Your task to perform on an android device: turn on improve location accuracy Image 0: 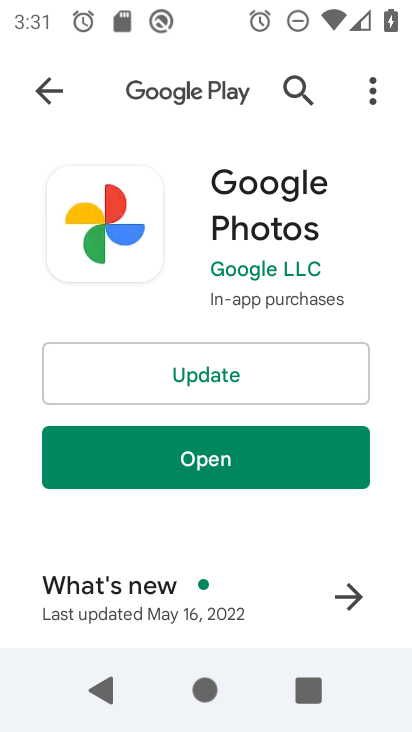
Step 0: press home button
Your task to perform on an android device: turn on improve location accuracy Image 1: 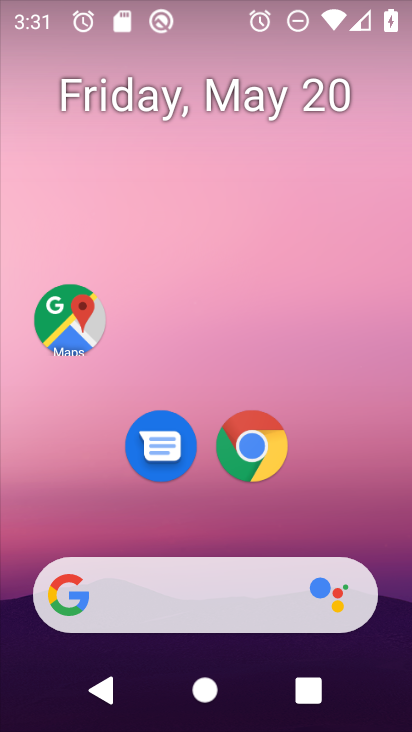
Step 1: drag from (339, 542) to (390, 6)
Your task to perform on an android device: turn on improve location accuracy Image 2: 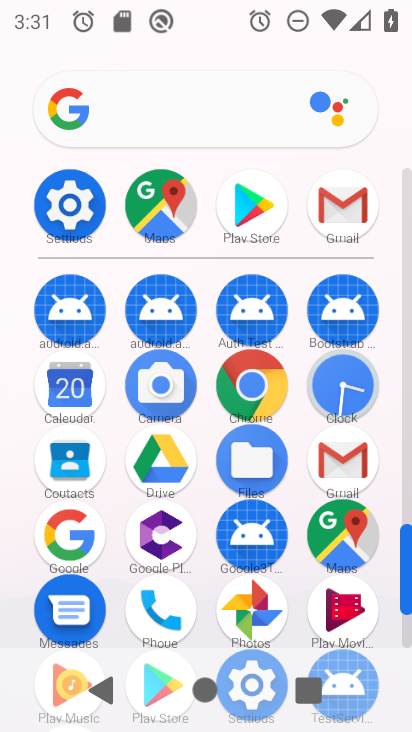
Step 2: click (73, 212)
Your task to perform on an android device: turn on improve location accuracy Image 3: 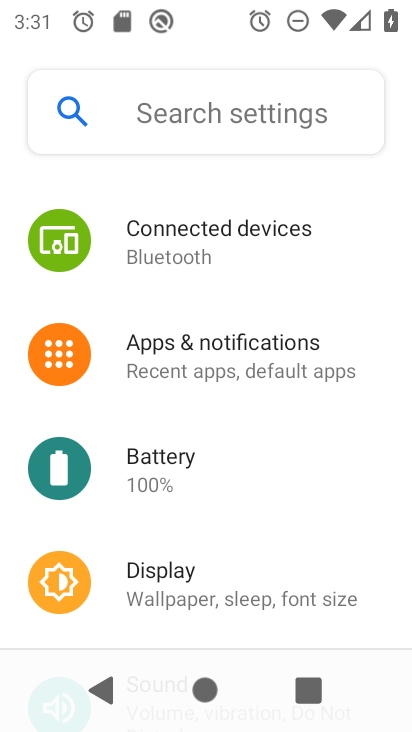
Step 3: drag from (373, 583) to (339, 245)
Your task to perform on an android device: turn on improve location accuracy Image 4: 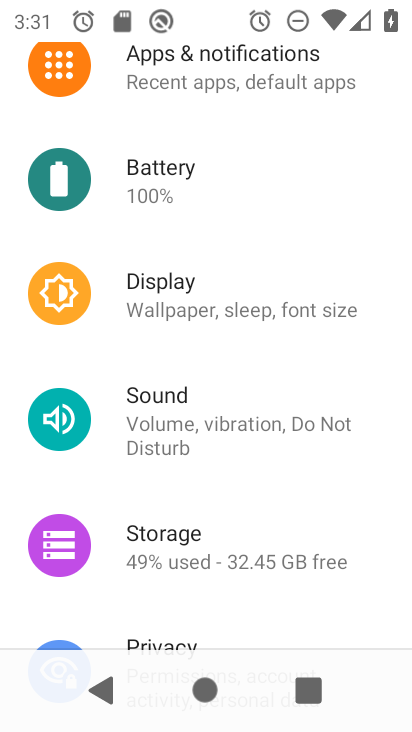
Step 4: drag from (351, 592) to (359, 231)
Your task to perform on an android device: turn on improve location accuracy Image 5: 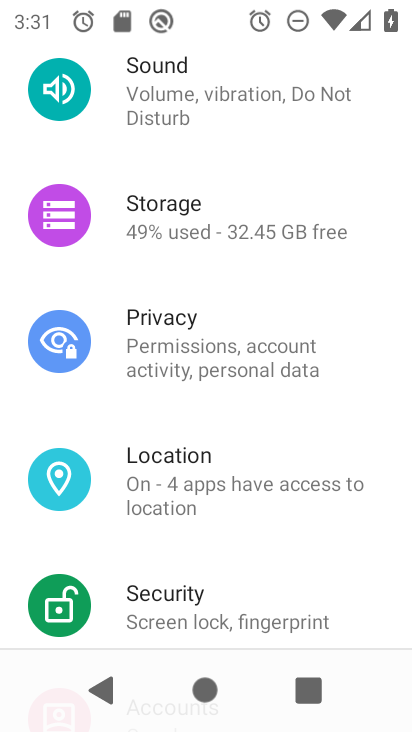
Step 5: click (165, 481)
Your task to perform on an android device: turn on improve location accuracy Image 6: 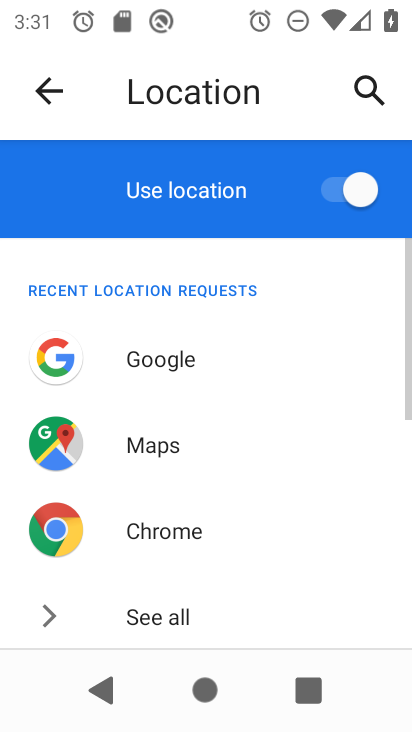
Step 6: drag from (378, 455) to (386, 110)
Your task to perform on an android device: turn on improve location accuracy Image 7: 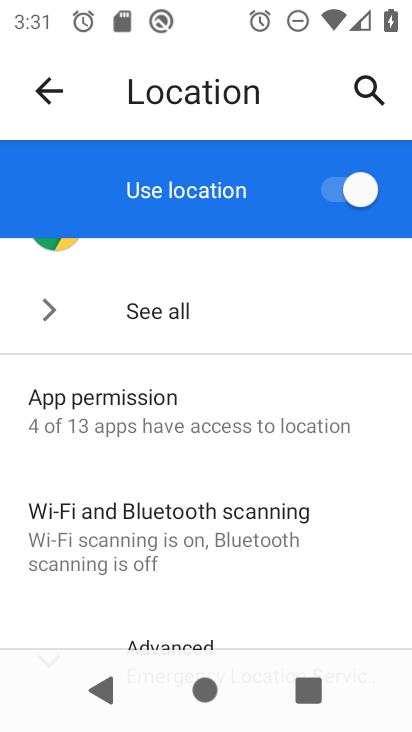
Step 7: drag from (395, 558) to (387, 350)
Your task to perform on an android device: turn on improve location accuracy Image 8: 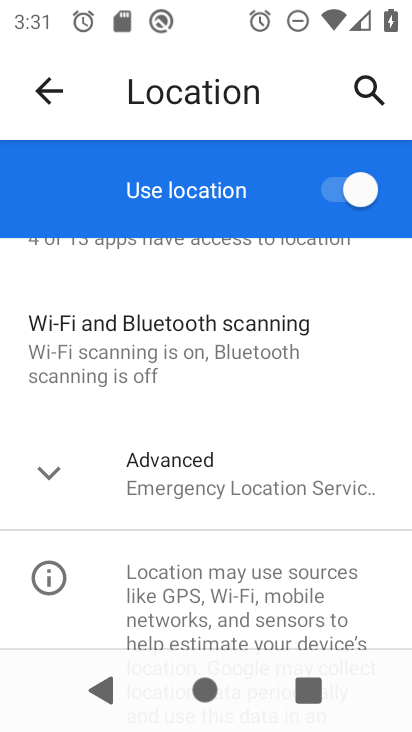
Step 8: click (46, 477)
Your task to perform on an android device: turn on improve location accuracy Image 9: 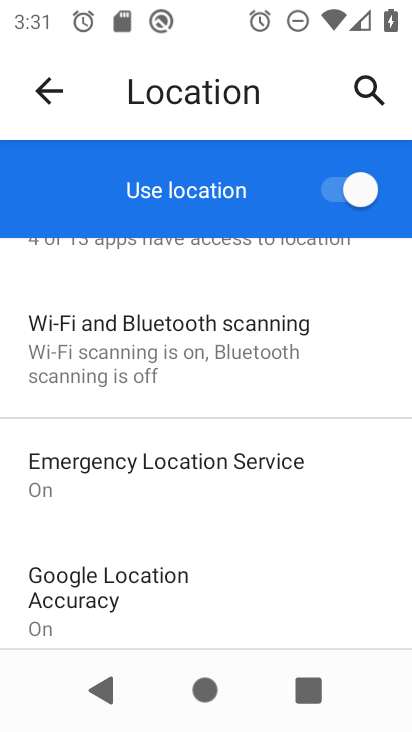
Step 9: click (97, 595)
Your task to perform on an android device: turn on improve location accuracy Image 10: 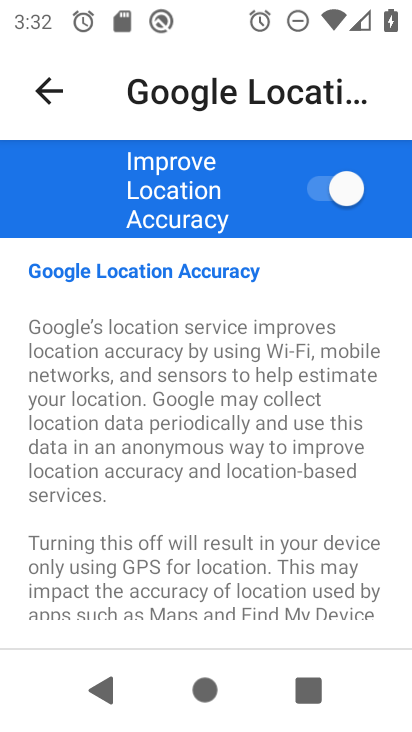
Step 10: task complete